Your task to perform on an android device: Open Chrome and go to the settings page Image 0: 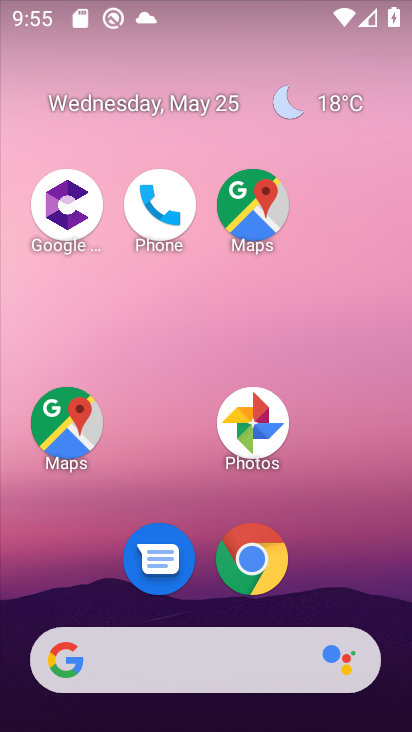
Step 0: click (261, 570)
Your task to perform on an android device: Open Chrome and go to the settings page Image 1: 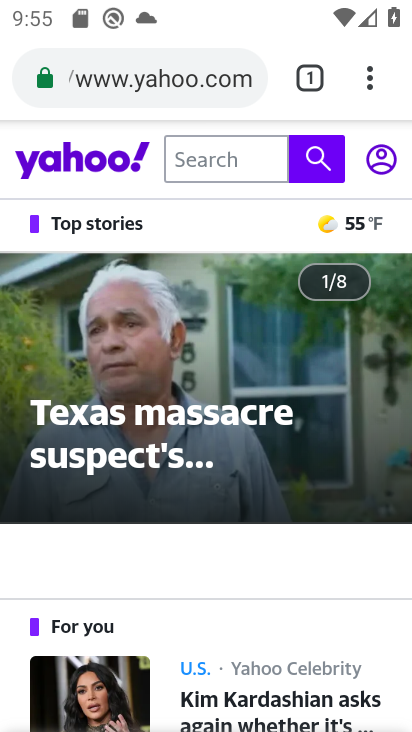
Step 1: click (369, 74)
Your task to perform on an android device: Open Chrome and go to the settings page Image 2: 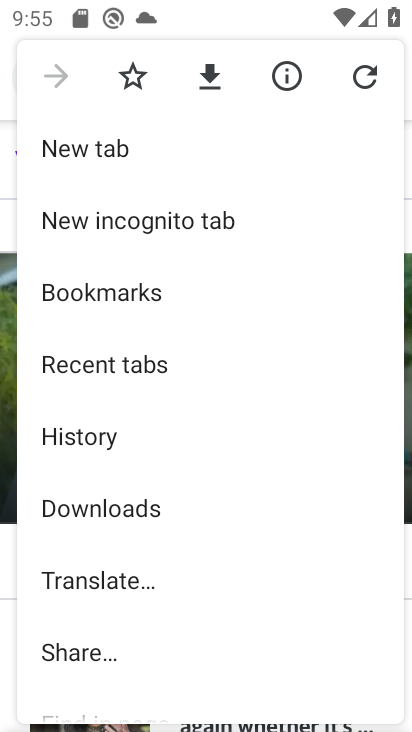
Step 2: drag from (117, 626) to (154, 186)
Your task to perform on an android device: Open Chrome and go to the settings page Image 3: 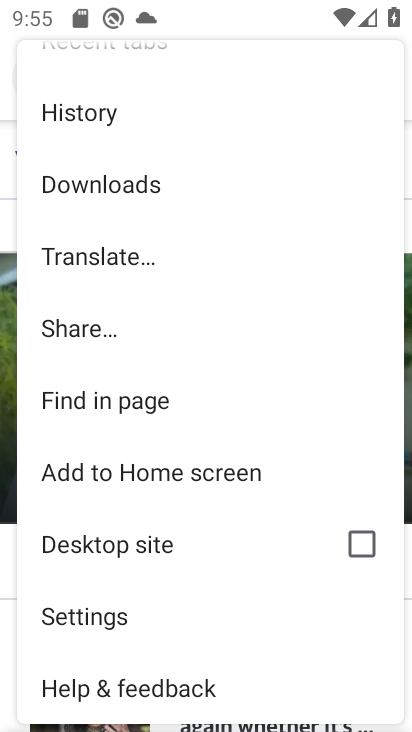
Step 3: click (70, 610)
Your task to perform on an android device: Open Chrome and go to the settings page Image 4: 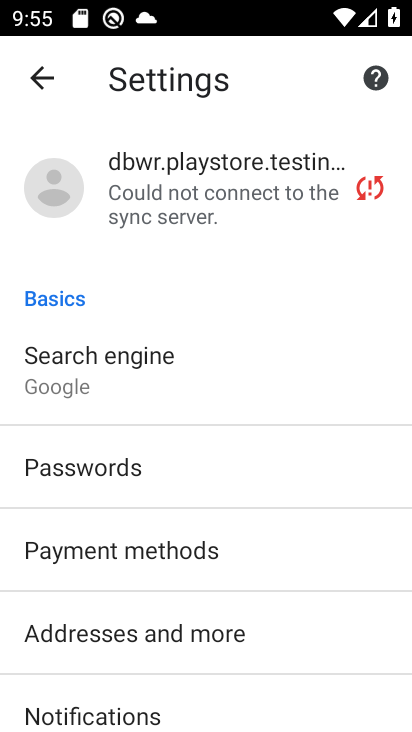
Step 4: task complete